Your task to perform on an android device: Go to settings Image 0: 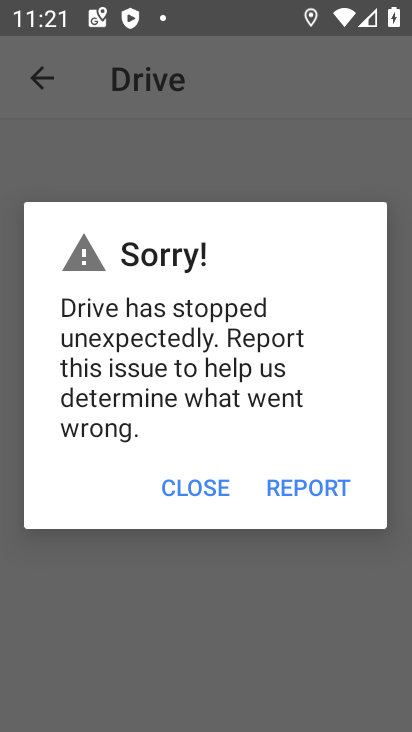
Step 0: press home button
Your task to perform on an android device: Go to settings Image 1: 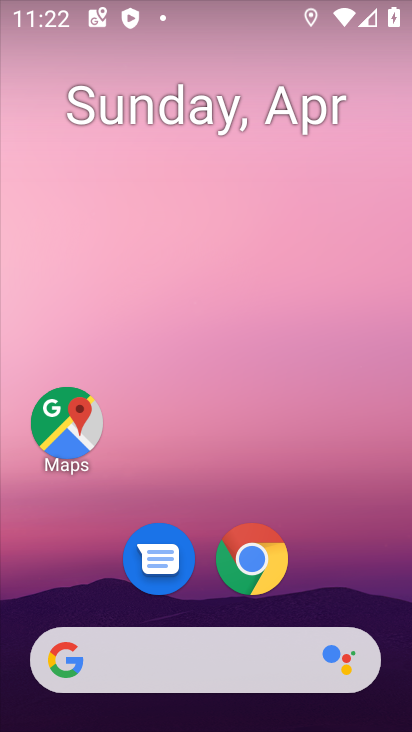
Step 1: drag from (351, 601) to (394, 68)
Your task to perform on an android device: Go to settings Image 2: 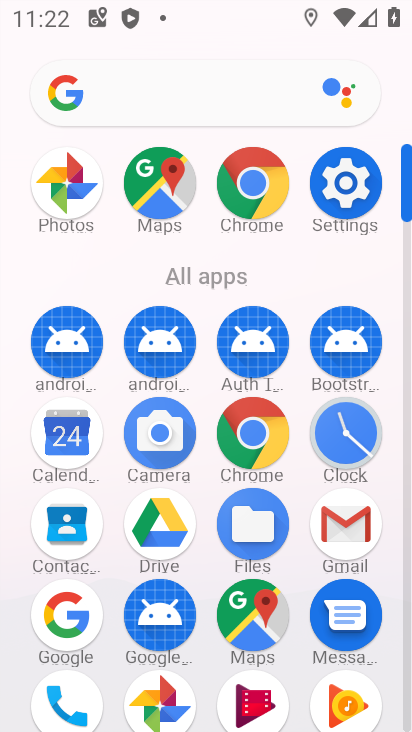
Step 2: click (346, 196)
Your task to perform on an android device: Go to settings Image 3: 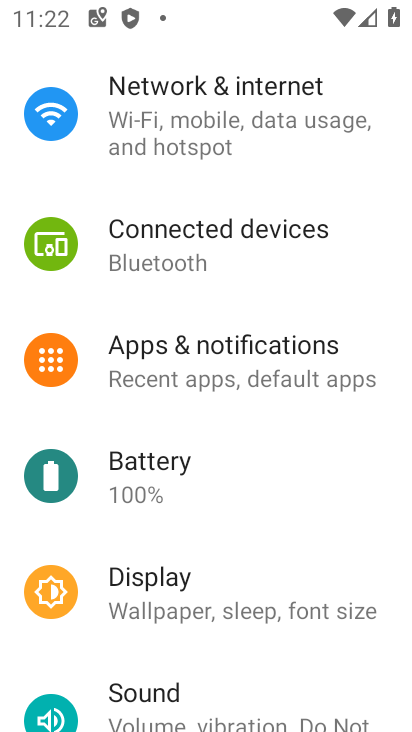
Step 3: task complete